Your task to perform on an android device: Go to network settings Image 0: 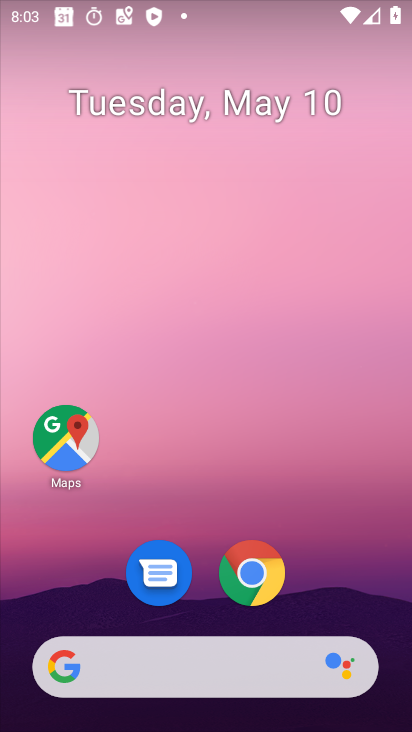
Step 0: press home button
Your task to perform on an android device: Go to network settings Image 1: 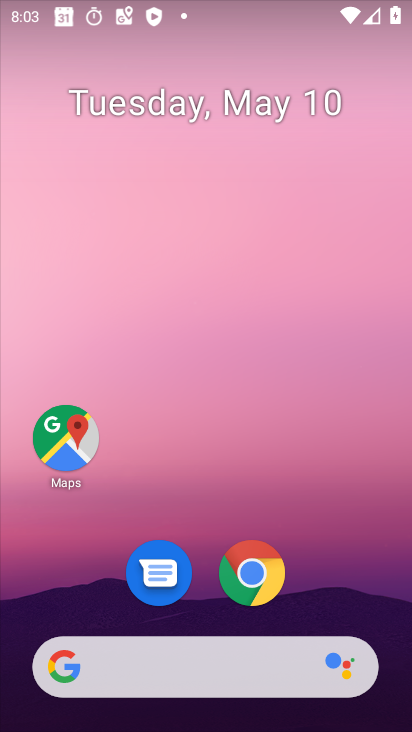
Step 1: drag from (393, 579) to (350, 150)
Your task to perform on an android device: Go to network settings Image 2: 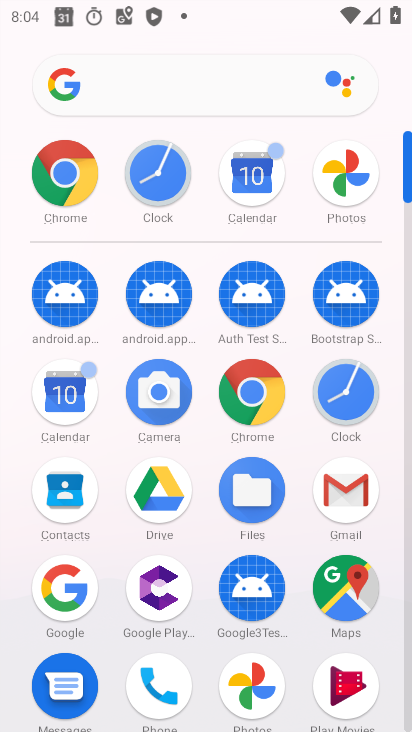
Step 2: drag from (198, 637) to (215, 368)
Your task to perform on an android device: Go to network settings Image 3: 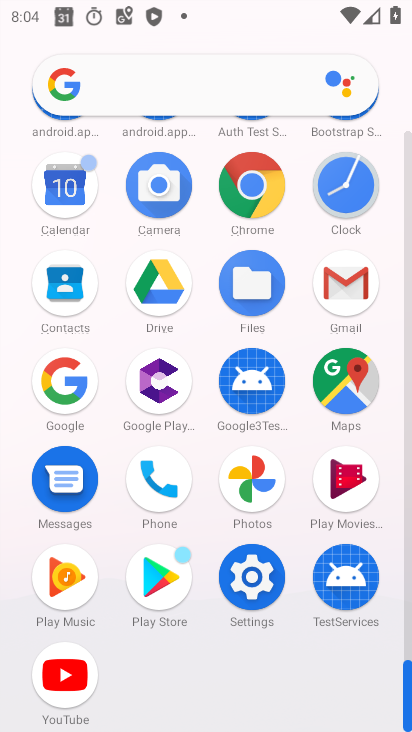
Step 3: click (235, 592)
Your task to perform on an android device: Go to network settings Image 4: 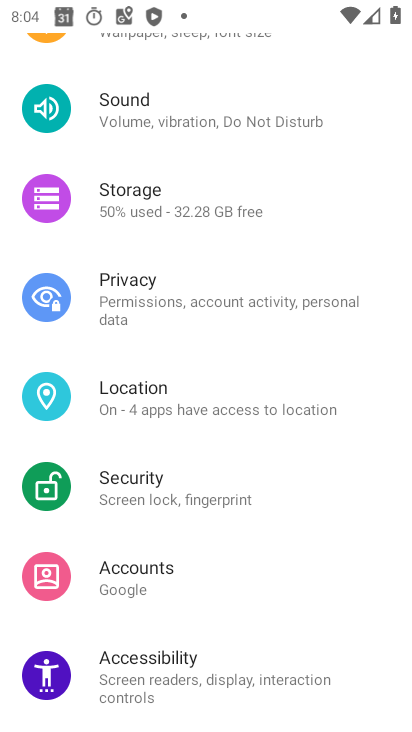
Step 4: drag from (206, 279) to (221, 610)
Your task to perform on an android device: Go to network settings Image 5: 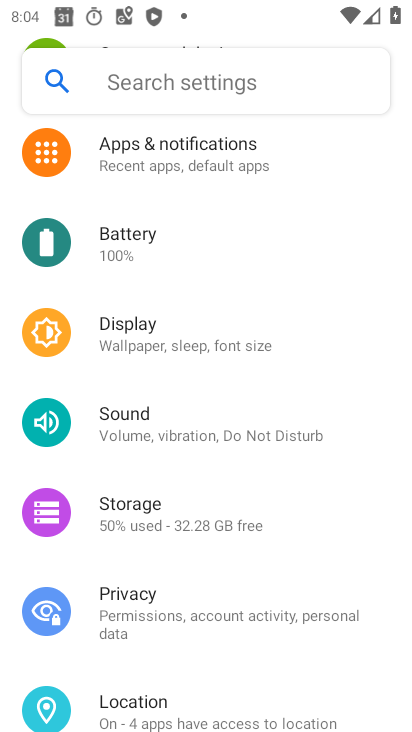
Step 5: drag from (219, 290) to (227, 593)
Your task to perform on an android device: Go to network settings Image 6: 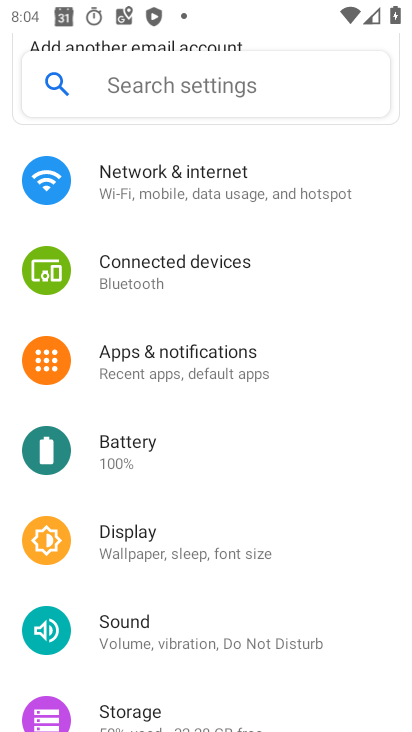
Step 6: click (228, 181)
Your task to perform on an android device: Go to network settings Image 7: 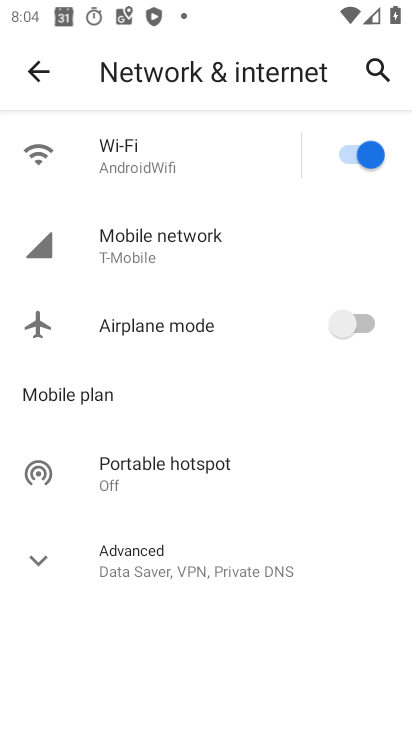
Step 7: click (239, 255)
Your task to perform on an android device: Go to network settings Image 8: 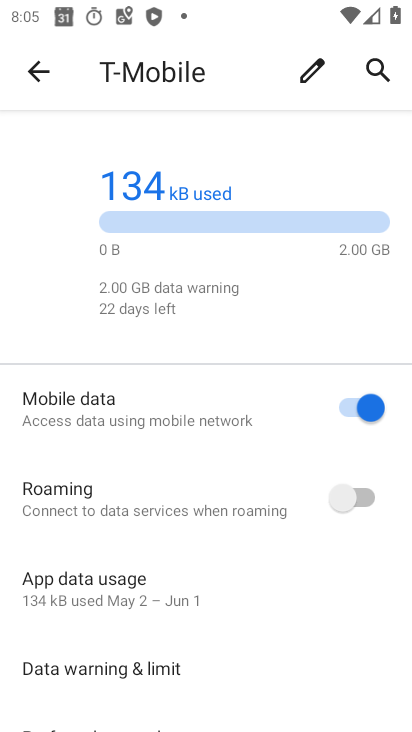
Step 8: task complete